Your task to perform on an android device: turn off notifications in google photos Image 0: 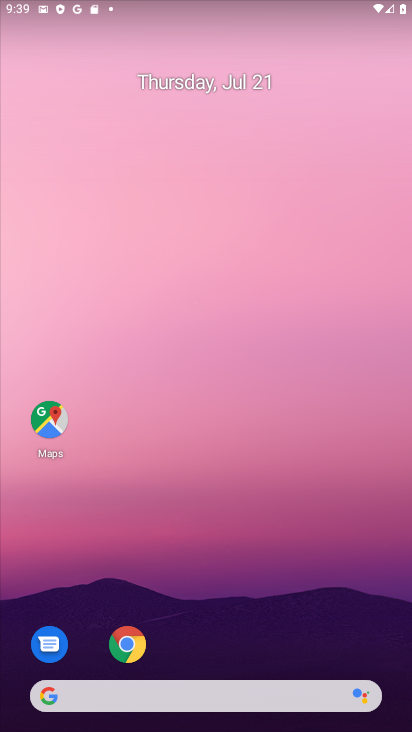
Step 0: press home button
Your task to perform on an android device: turn off notifications in google photos Image 1: 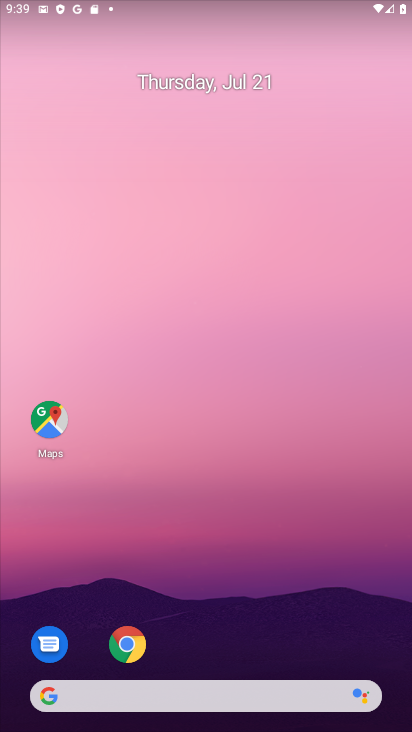
Step 1: drag from (229, 647) to (229, 78)
Your task to perform on an android device: turn off notifications in google photos Image 2: 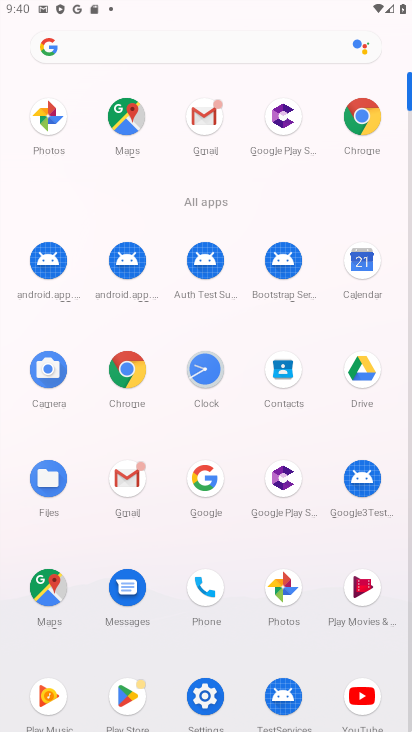
Step 2: click (284, 588)
Your task to perform on an android device: turn off notifications in google photos Image 3: 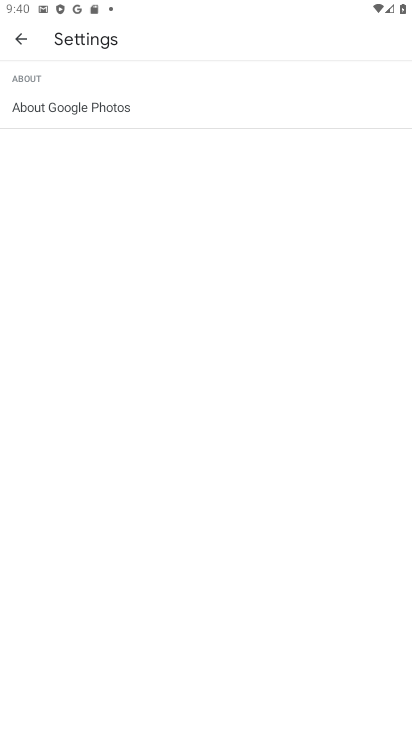
Step 3: click (27, 32)
Your task to perform on an android device: turn off notifications in google photos Image 4: 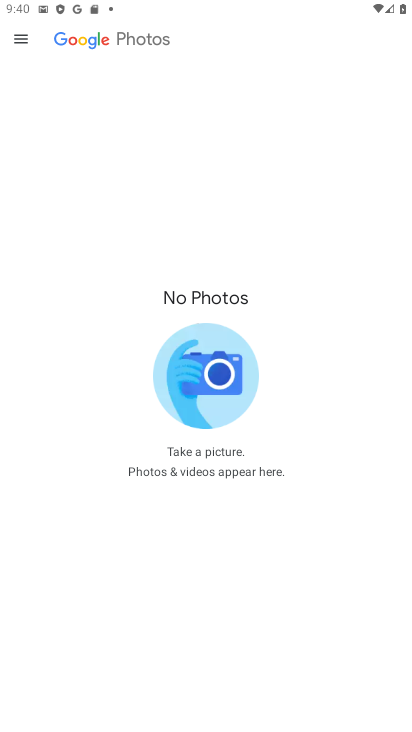
Step 4: click (23, 31)
Your task to perform on an android device: turn off notifications in google photos Image 5: 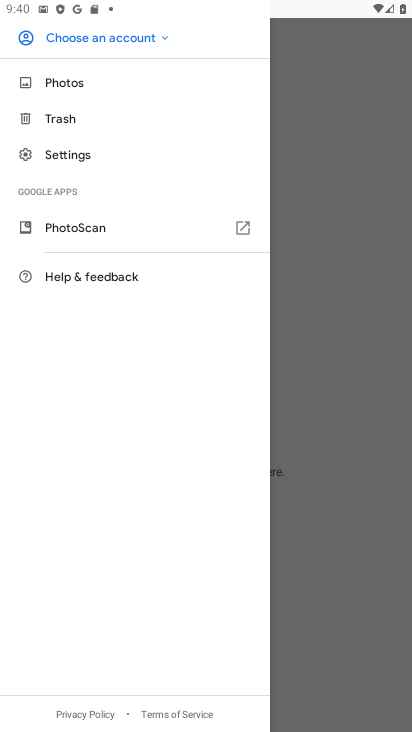
Step 5: click (75, 153)
Your task to perform on an android device: turn off notifications in google photos Image 6: 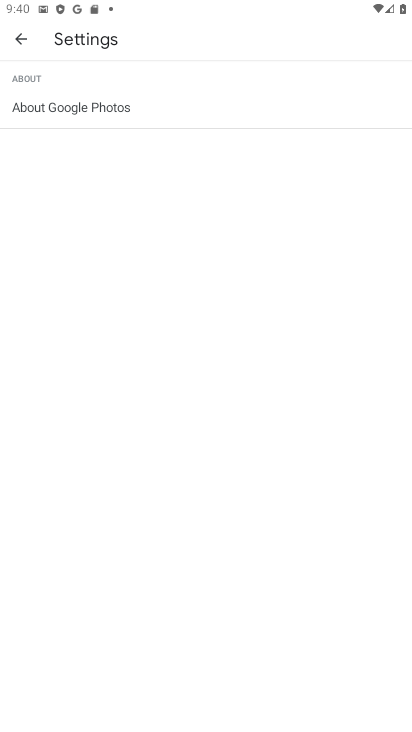
Step 6: click (61, 106)
Your task to perform on an android device: turn off notifications in google photos Image 7: 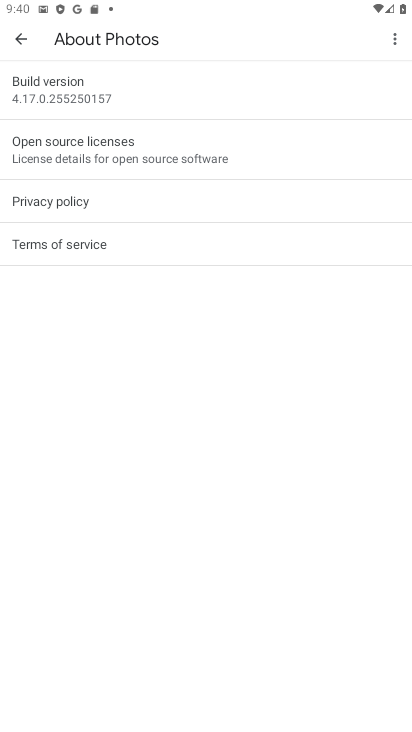
Step 7: click (388, 34)
Your task to perform on an android device: turn off notifications in google photos Image 8: 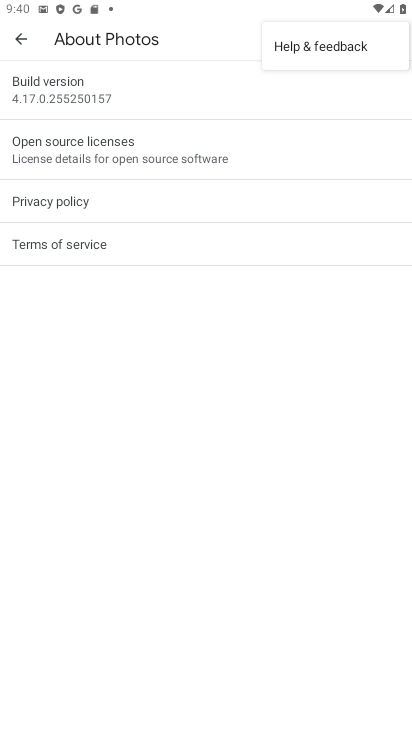
Step 8: click (22, 37)
Your task to perform on an android device: turn off notifications in google photos Image 9: 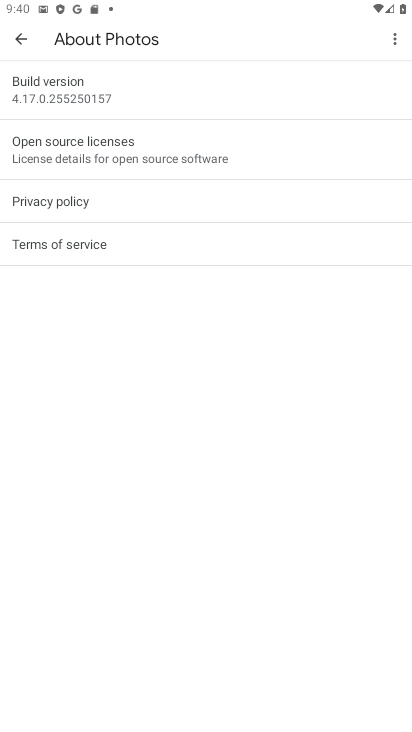
Step 9: task complete